Your task to perform on an android device: Toggle the flashlight Image 0: 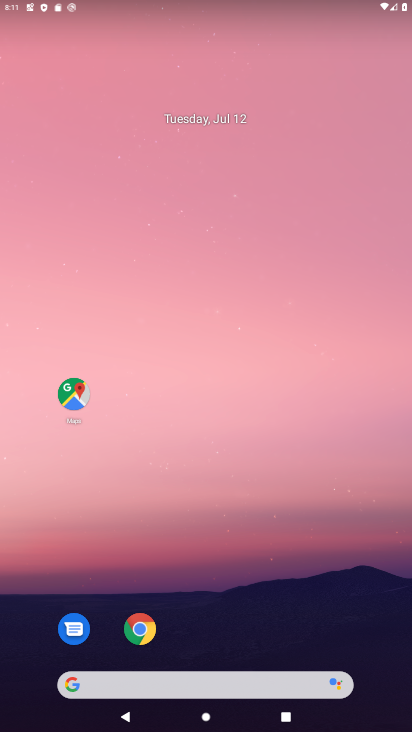
Step 0: drag from (256, 496) to (256, 178)
Your task to perform on an android device: Toggle the flashlight Image 1: 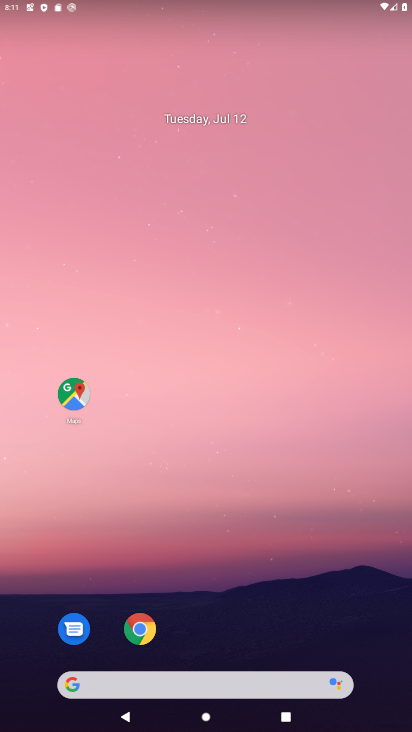
Step 1: drag from (217, 571) to (236, 159)
Your task to perform on an android device: Toggle the flashlight Image 2: 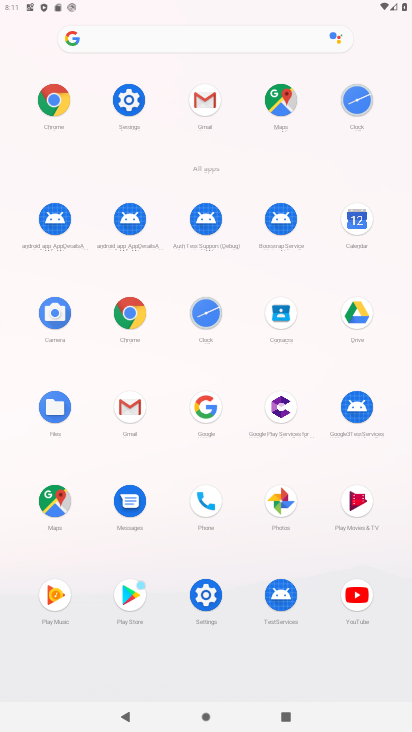
Step 2: click (114, 95)
Your task to perform on an android device: Toggle the flashlight Image 3: 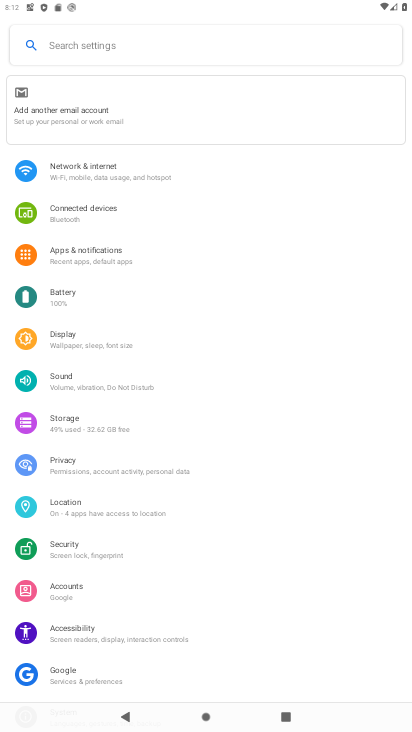
Step 3: task complete